Your task to perform on an android device: Open the map Image 0: 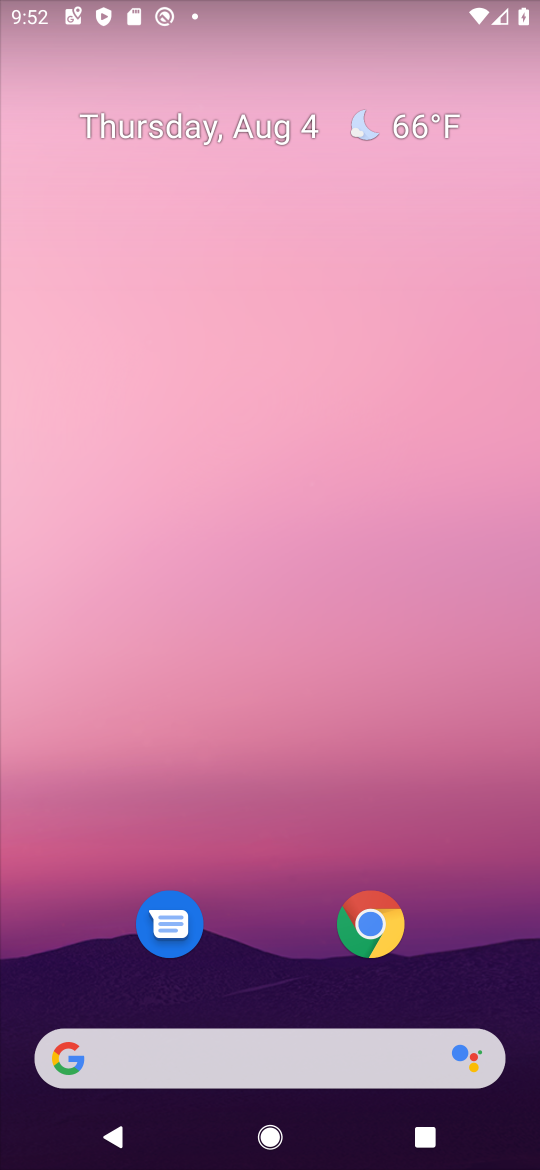
Step 0: drag from (300, 832) to (346, 321)
Your task to perform on an android device: Open the map Image 1: 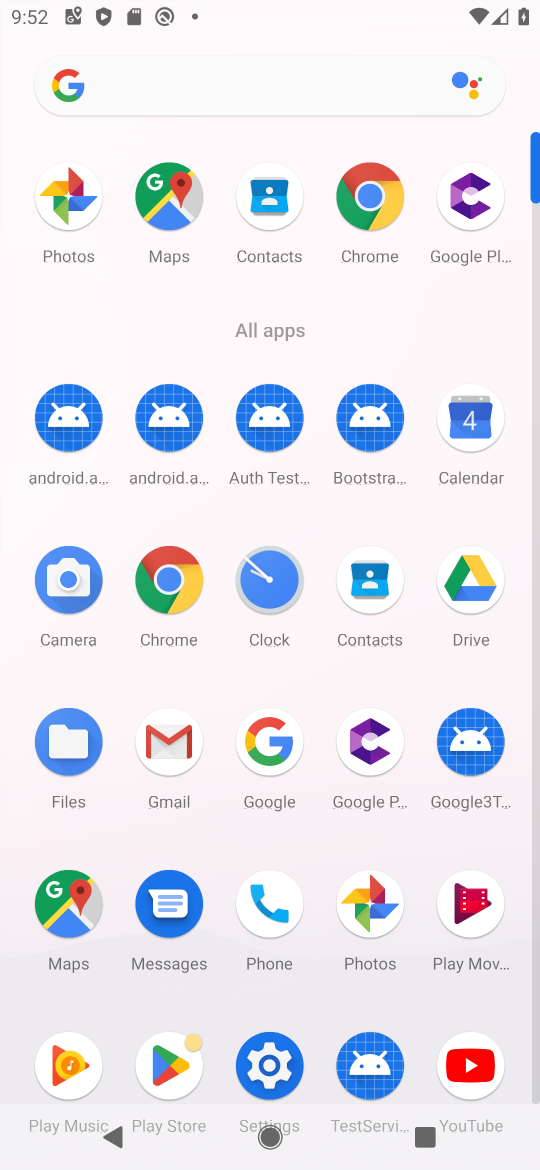
Step 1: click (169, 193)
Your task to perform on an android device: Open the map Image 2: 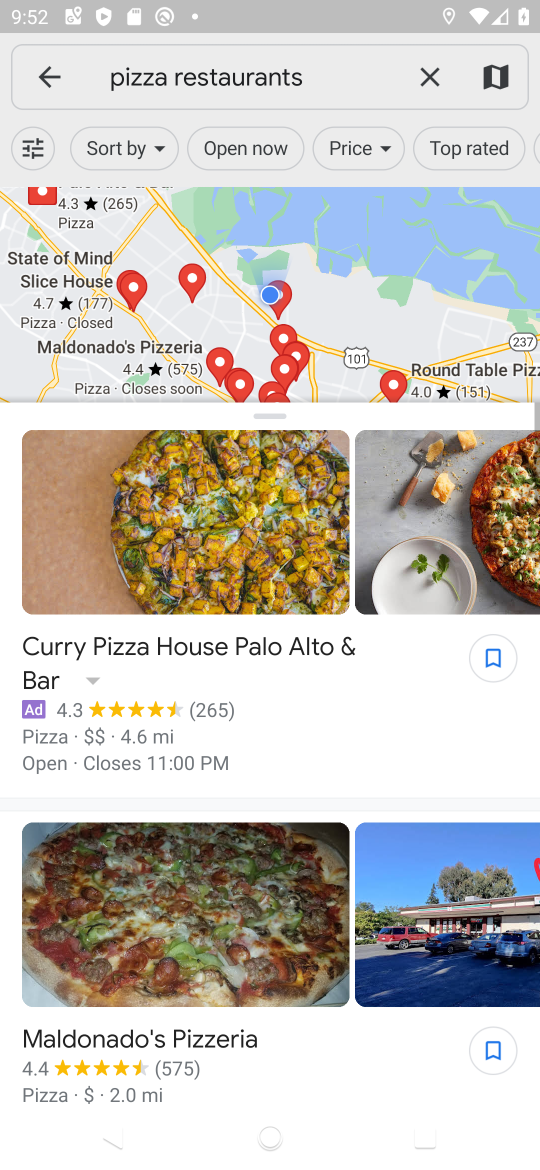
Step 2: task complete